Your task to perform on an android device: Open Chrome and go to the settings page Image 0: 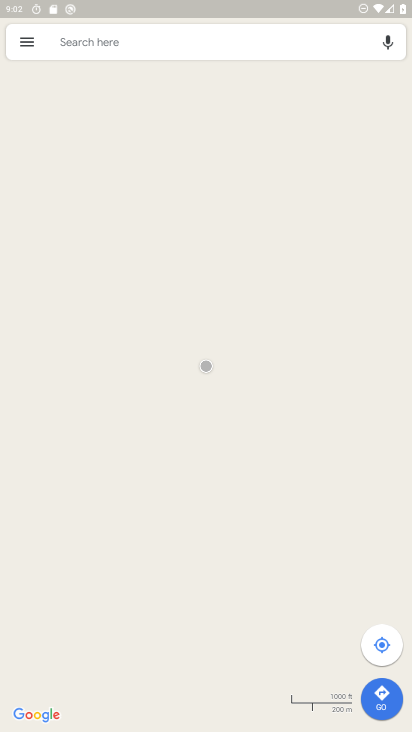
Step 0: press home button
Your task to perform on an android device: Open Chrome and go to the settings page Image 1: 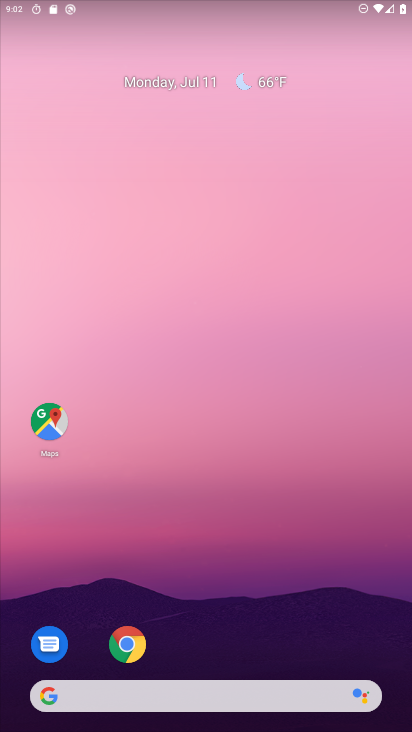
Step 1: drag from (337, 634) to (339, 145)
Your task to perform on an android device: Open Chrome and go to the settings page Image 2: 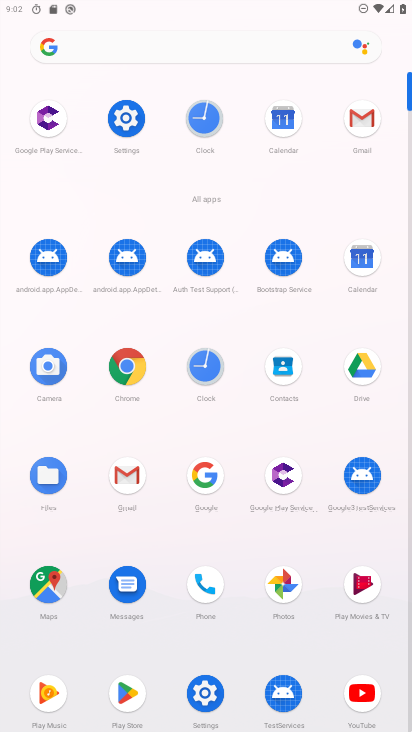
Step 2: click (127, 366)
Your task to perform on an android device: Open Chrome and go to the settings page Image 3: 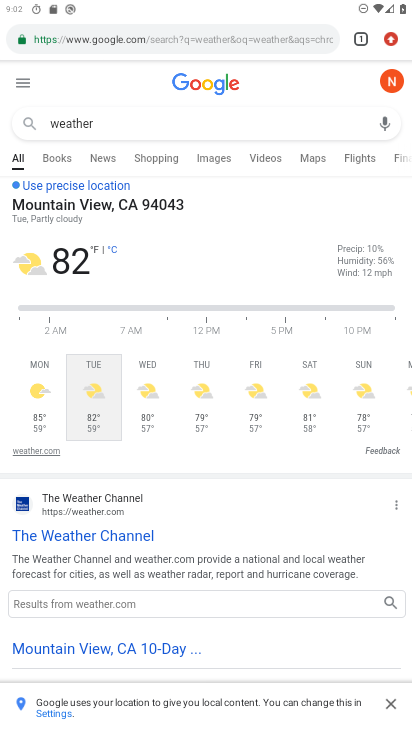
Step 3: task complete